Your task to perform on an android device: Add "alienware area 51" to the cart on bestbuy.com, then select checkout. Image 0: 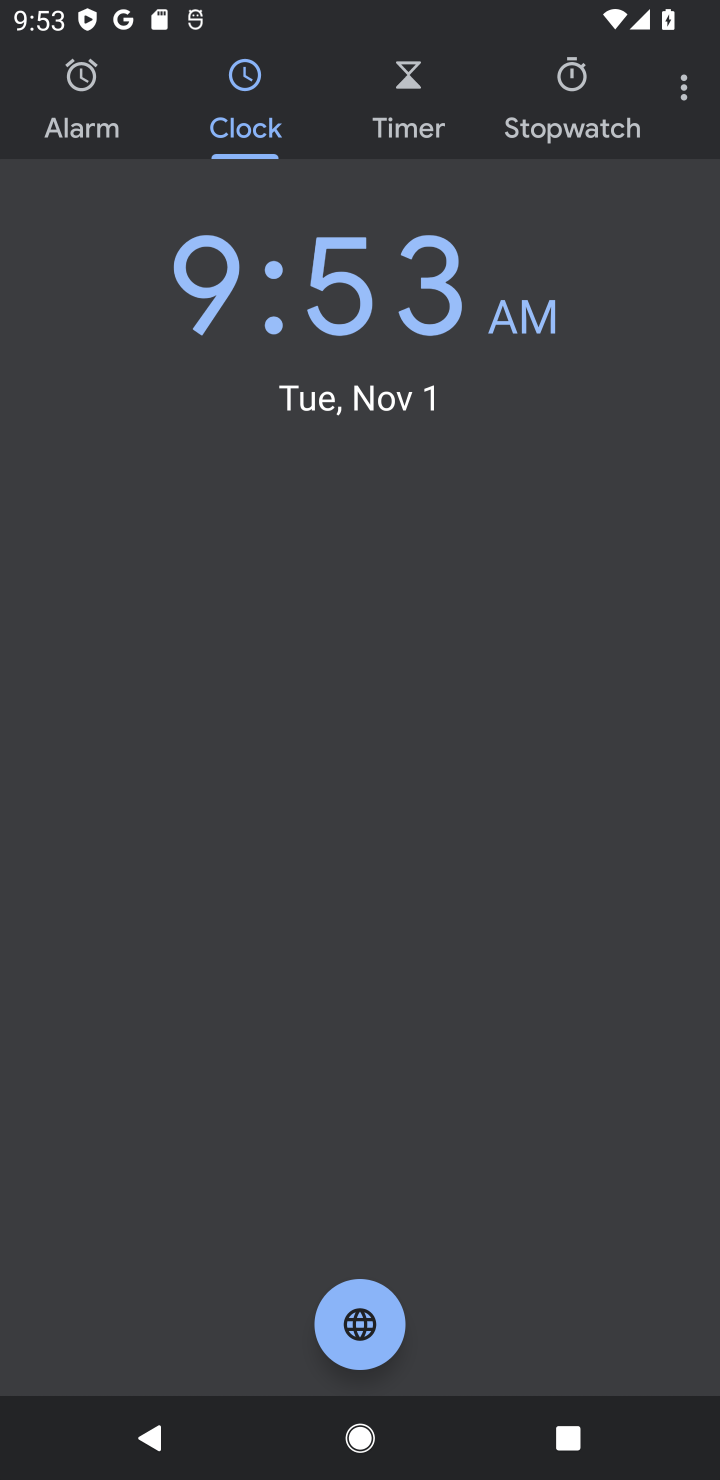
Step 0: press home button
Your task to perform on an android device: Add "alienware area 51" to the cart on bestbuy.com, then select checkout. Image 1: 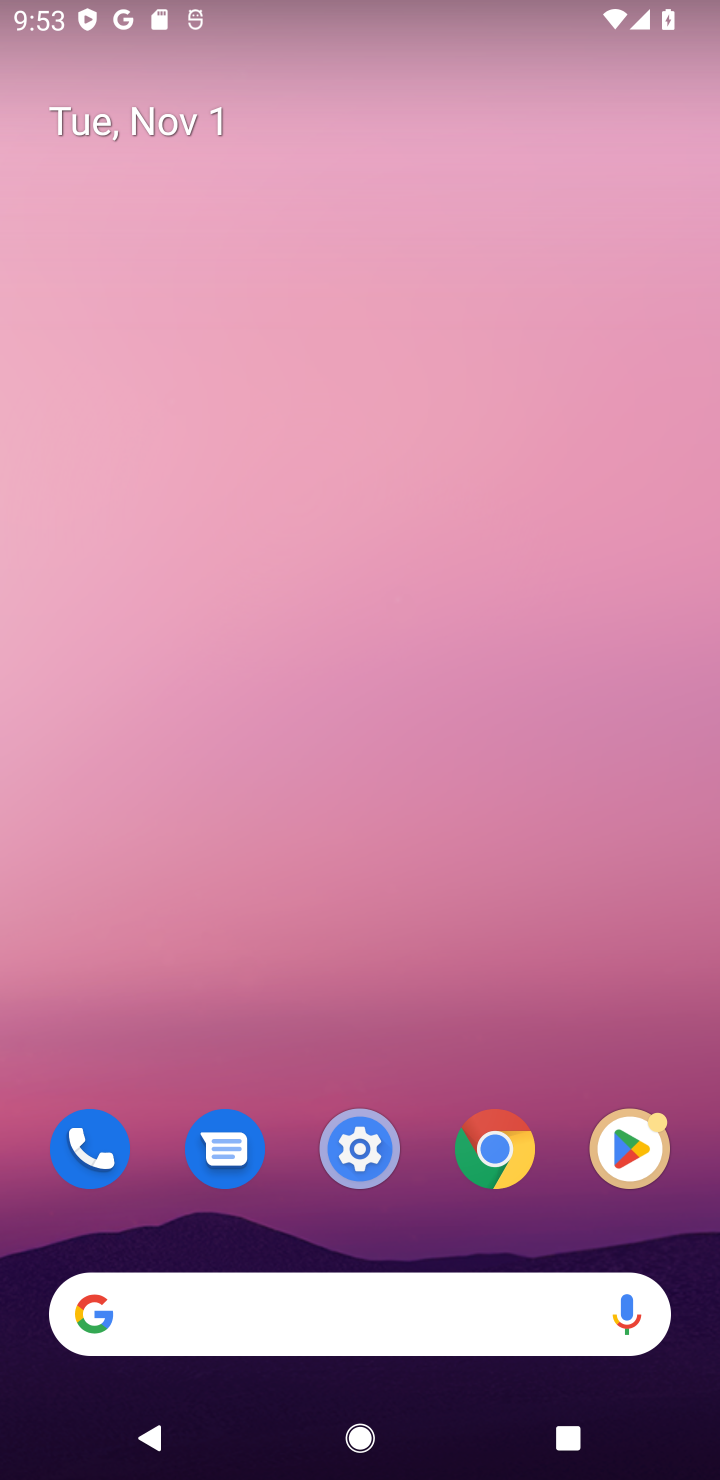
Step 1: click (147, 1309)
Your task to perform on an android device: Add "alienware area 51" to the cart on bestbuy.com, then select checkout. Image 2: 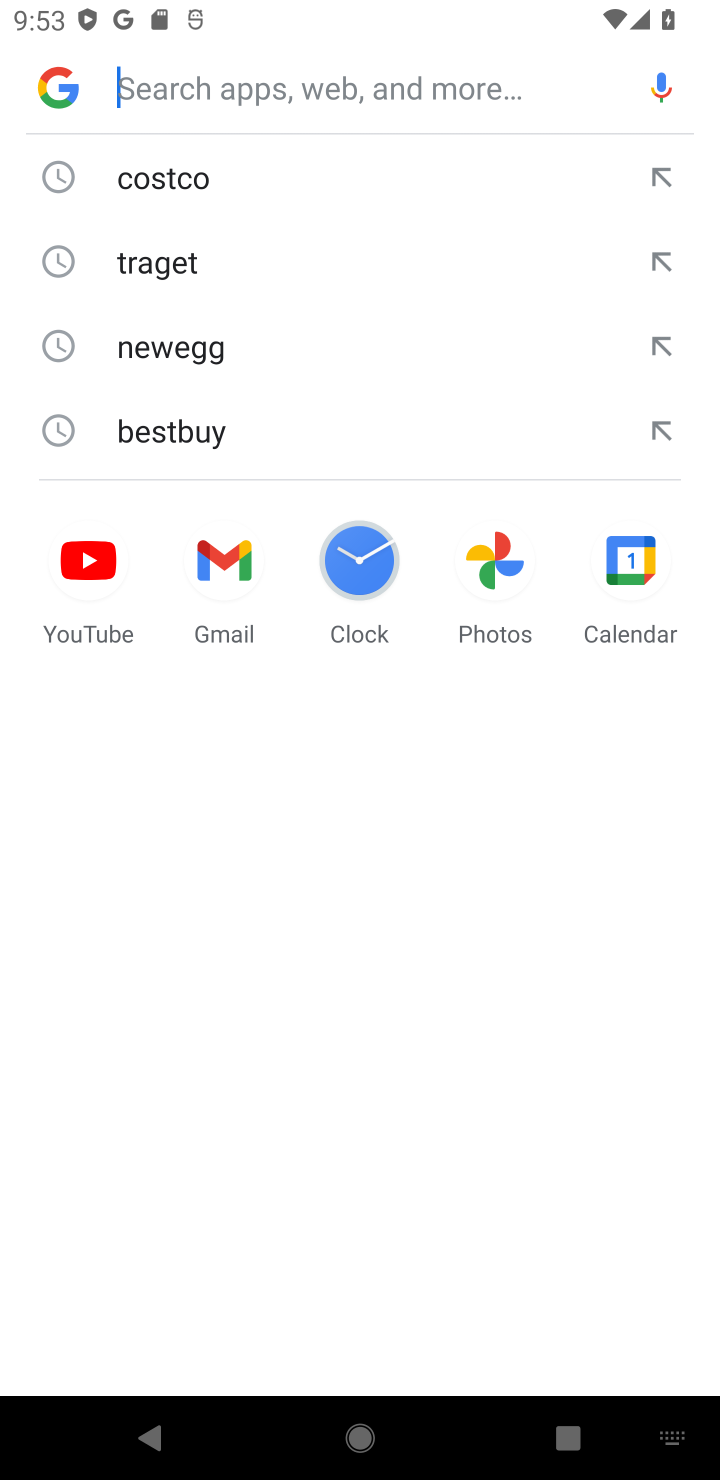
Step 2: type "bestbuy.com"
Your task to perform on an android device: Add "alienware area 51" to the cart on bestbuy.com, then select checkout. Image 3: 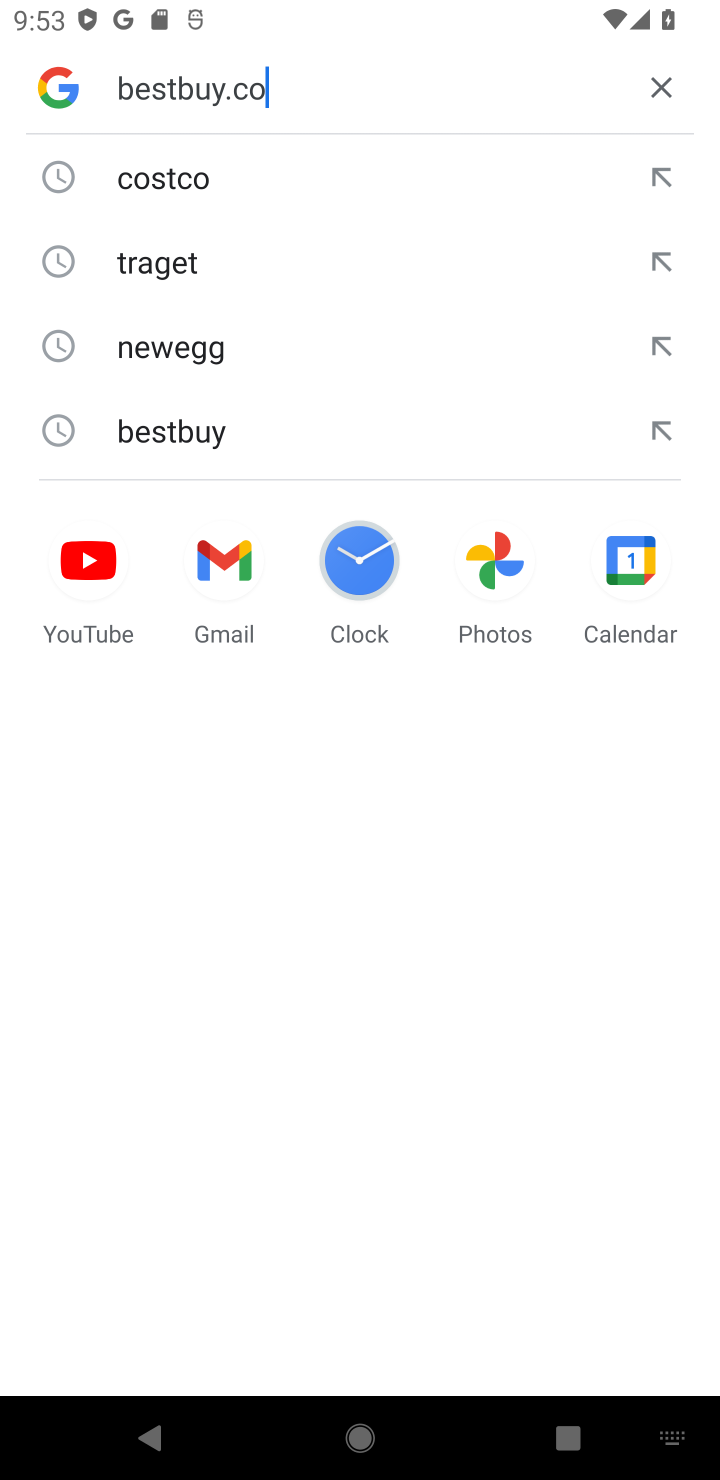
Step 3: press enter
Your task to perform on an android device: Add "alienware area 51" to the cart on bestbuy.com, then select checkout. Image 4: 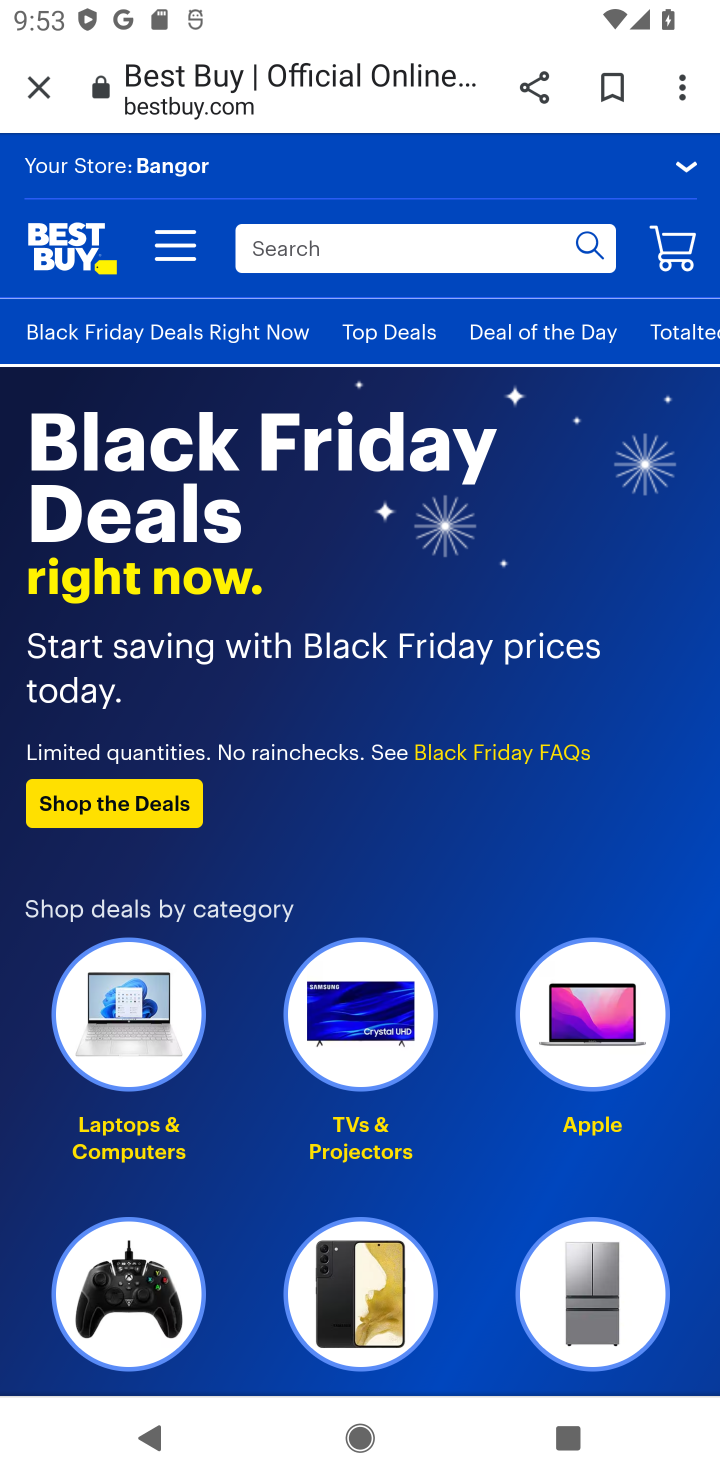
Step 4: click (293, 241)
Your task to perform on an android device: Add "alienware area 51" to the cart on bestbuy.com, then select checkout. Image 5: 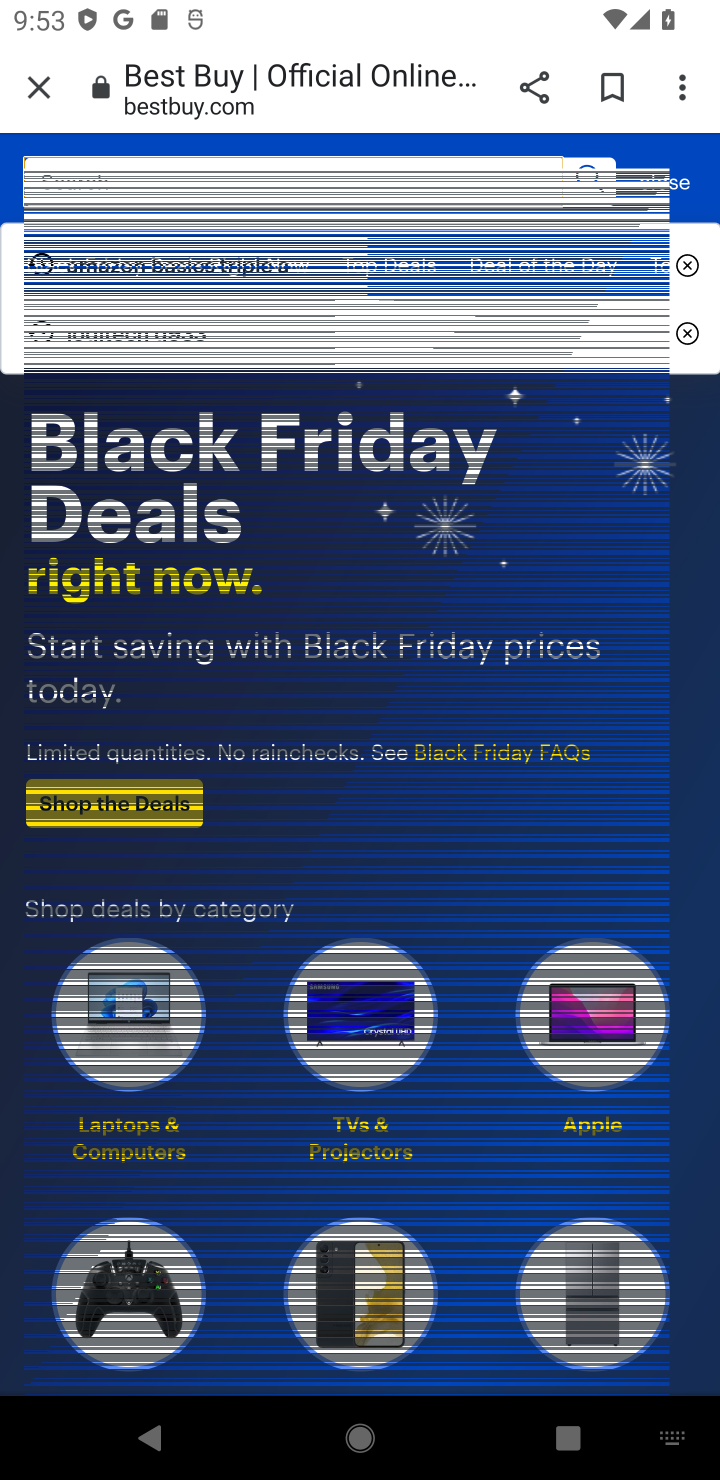
Step 5: type "alienware area 51"
Your task to perform on an android device: Add "alienware area 51" to the cart on bestbuy.com, then select checkout. Image 6: 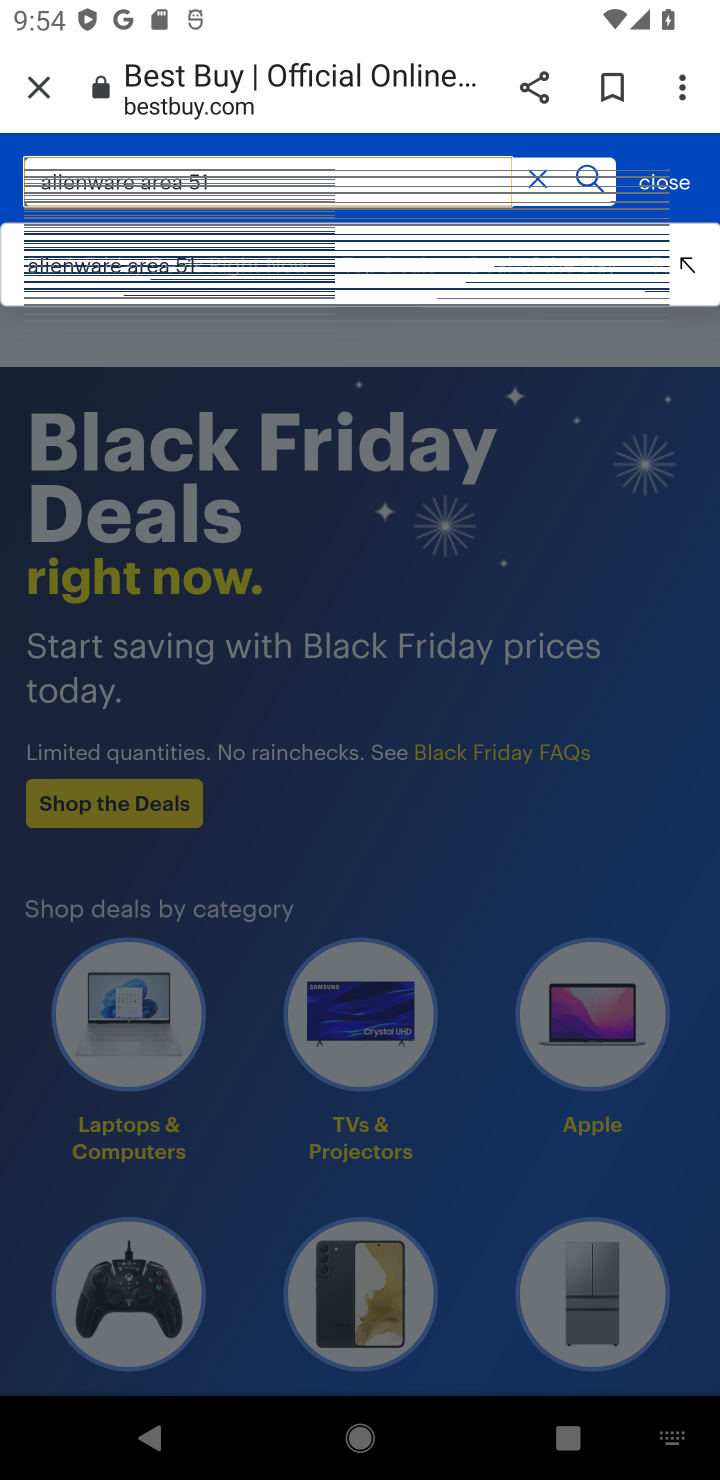
Step 6: press enter
Your task to perform on an android device: Add "alienware area 51" to the cart on bestbuy.com, then select checkout. Image 7: 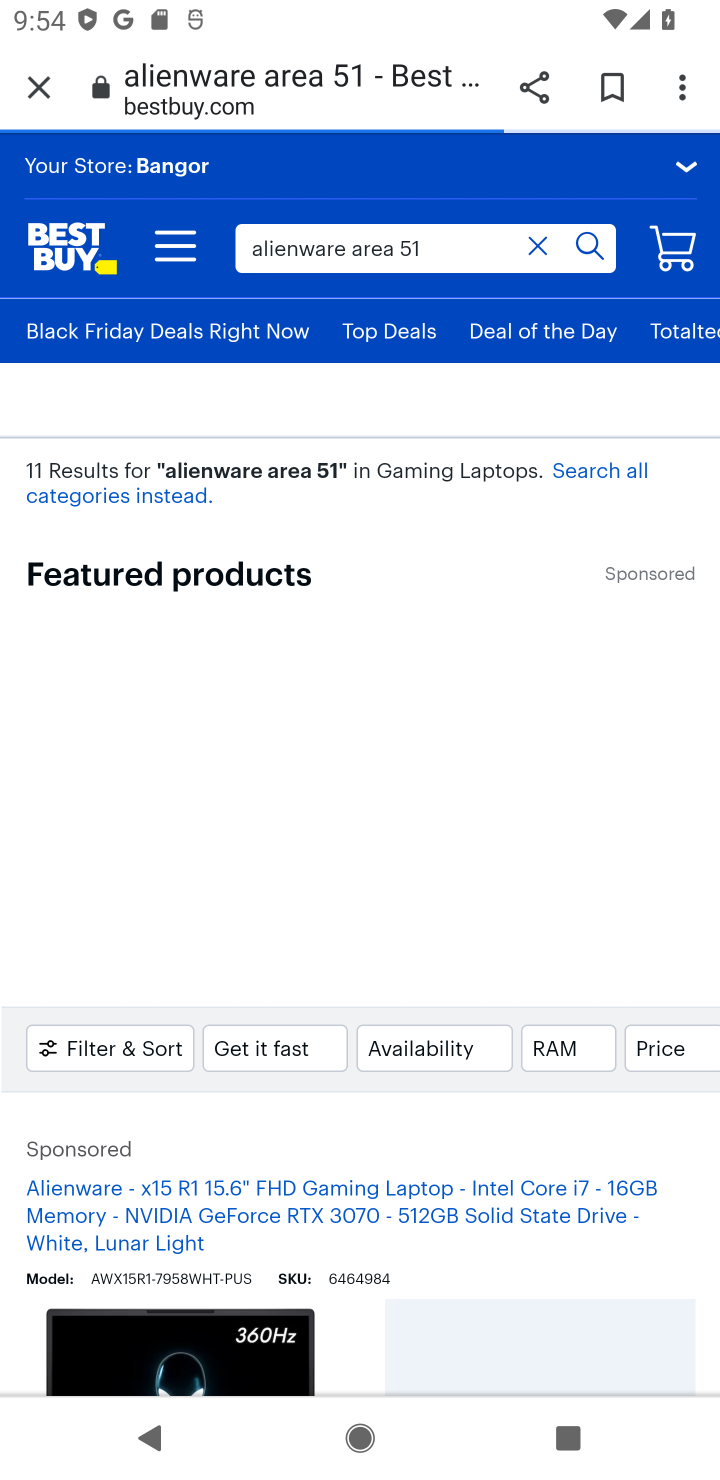
Step 7: task complete